Your task to perform on an android device: Go to notification settings Image 0: 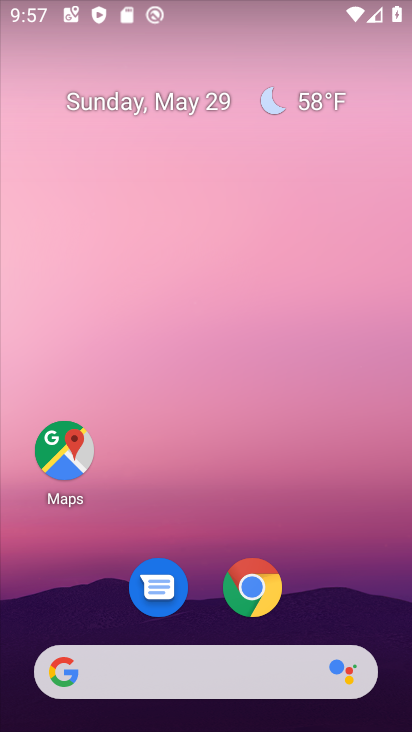
Step 0: drag from (337, 612) to (231, 140)
Your task to perform on an android device: Go to notification settings Image 1: 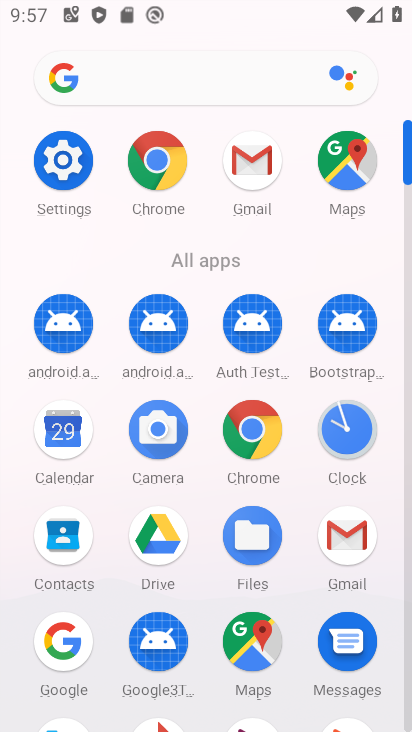
Step 1: click (54, 175)
Your task to perform on an android device: Go to notification settings Image 2: 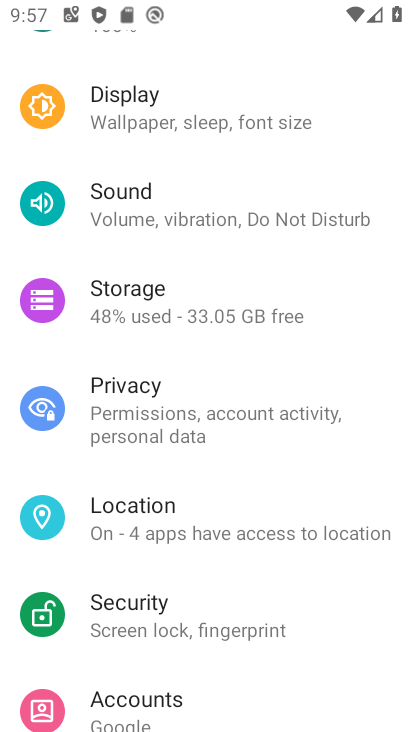
Step 2: drag from (181, 134) to (222, 472)
Your task to perform on an android device: Go to notification settings Image 3: 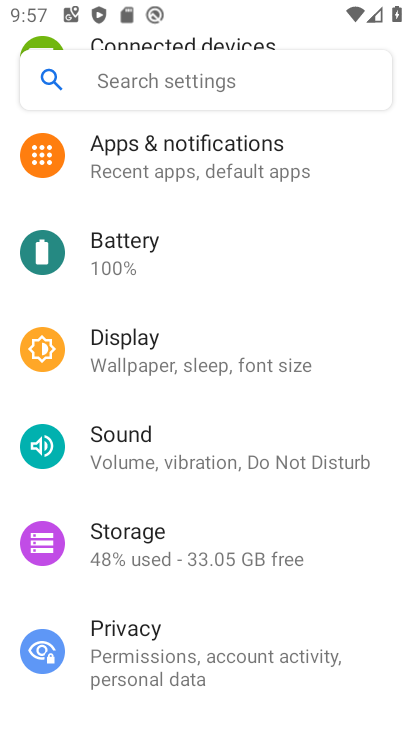
Step 3: click (187, 162)
Your task to perform on an android device: Go to notification settings Image 4: 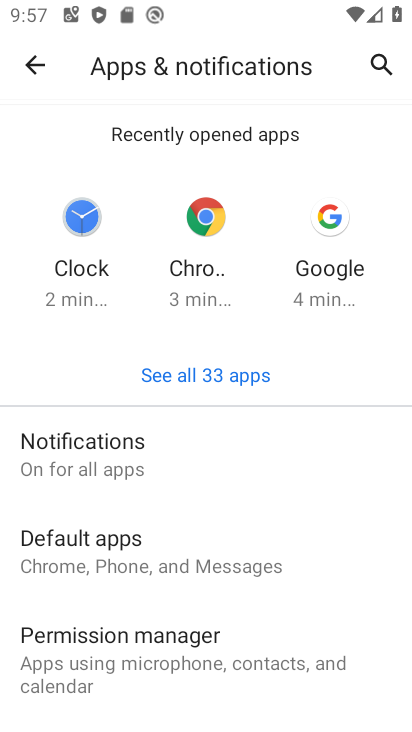
Step 4: click (232, 446)
Your task to perform on an android device: Go to notification settings Image 5: 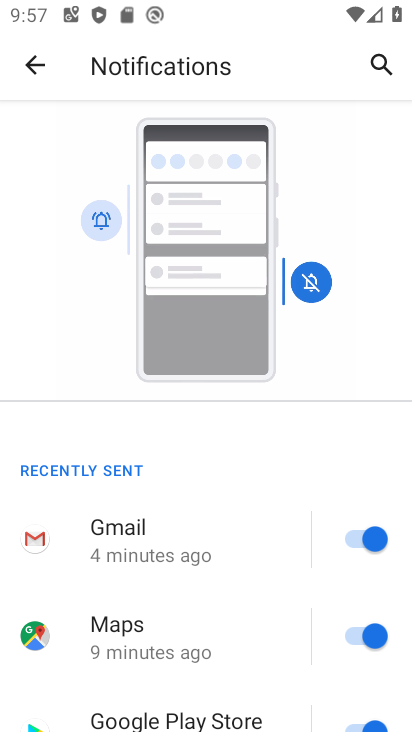
Step 5: task complete